Your task to perform on an android device: create a new album in the google photos Image 0: 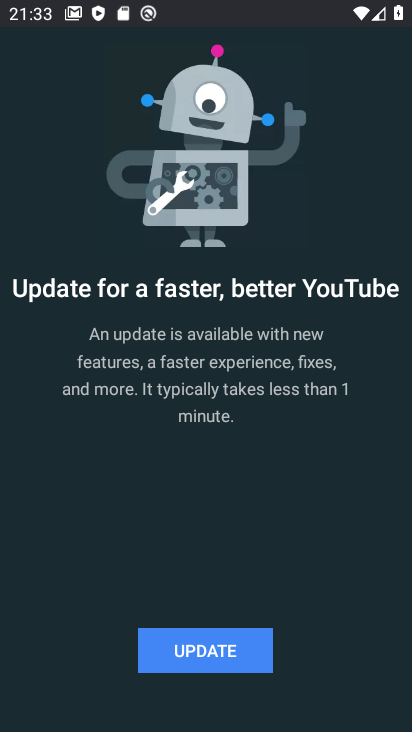
Step 0: press home button
Your task to perform on an android device: create a new album in the google photos Image 1: 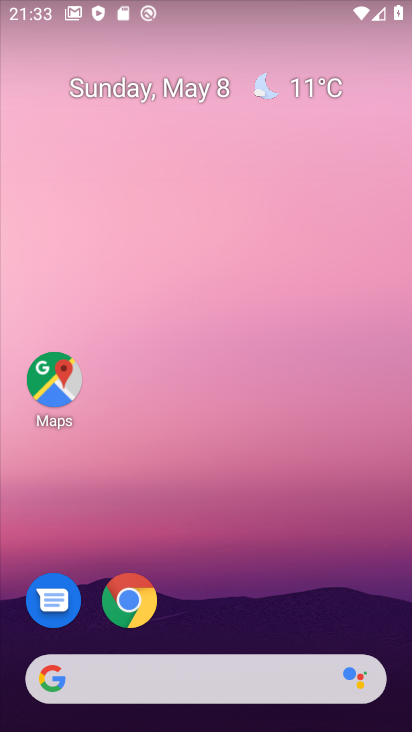
Step 1: drag from (223, 628) to (313, 105)
Your task to perform on an android device: create a new album in the google photos Image 2: 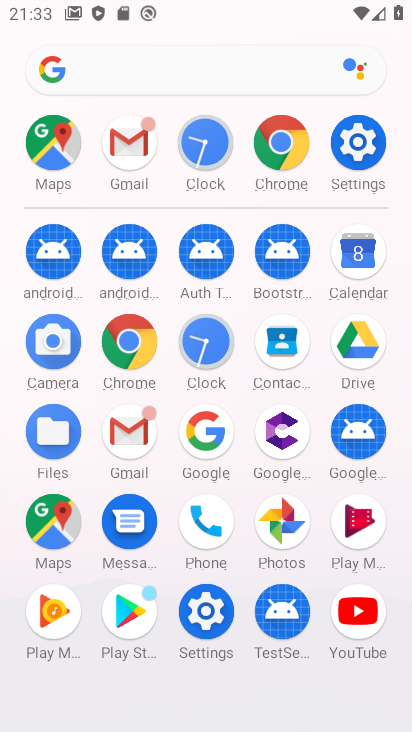
Step 2: click (280, 518)
Your task to perform on an android device: create a new album in the google photos Image 3: 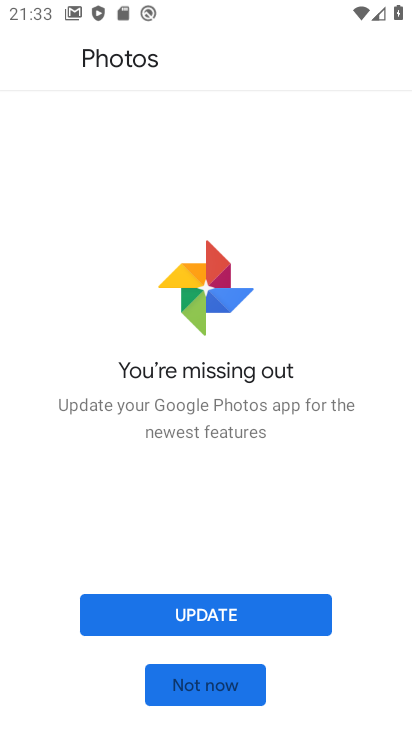
Step 3: click (190, 686)
Your task to perform on an android device: create a new album in the google photos Image 4: 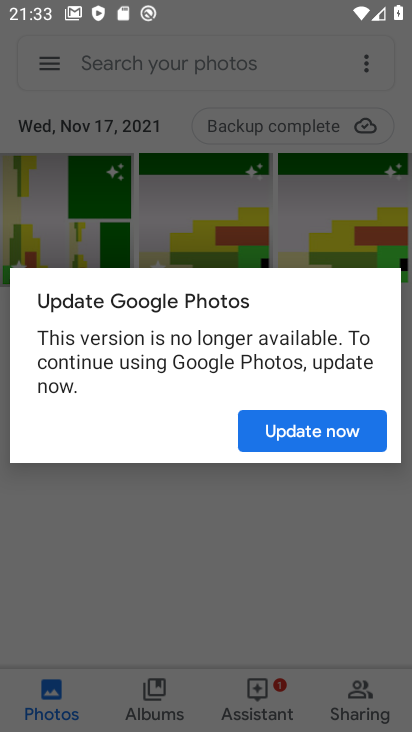
Step 4: click (337, 429)
Your task to perform on an android device: create a new album in the google photos Image 5: 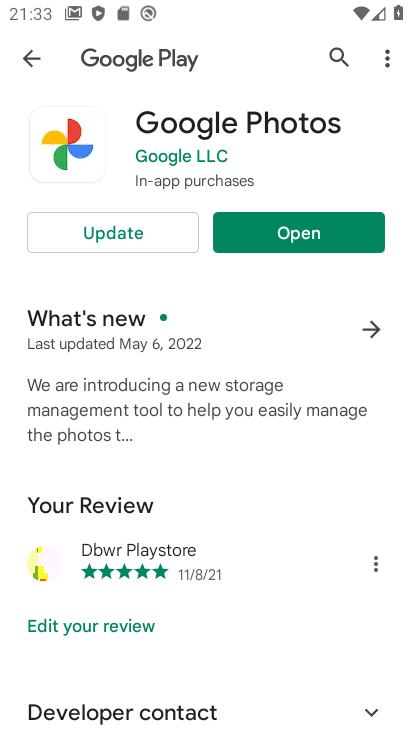
Step 5: click (308, 244)
Your task to perform on an android device: create a new album in the google photos Image 6: 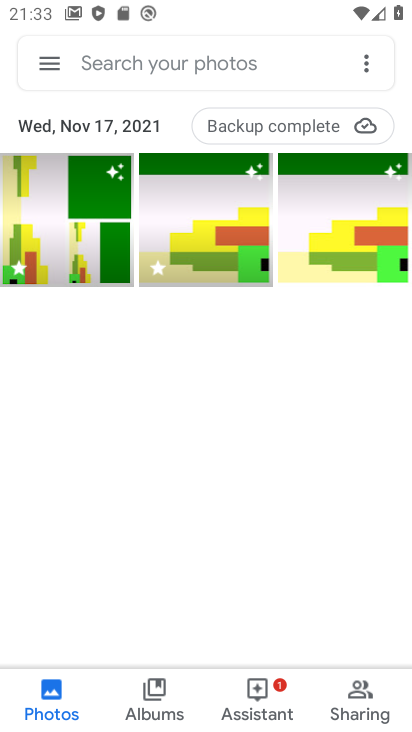
Step 6: click (117, 243)
Your task to perform on an android device: create a new album in the google photos Image 7: 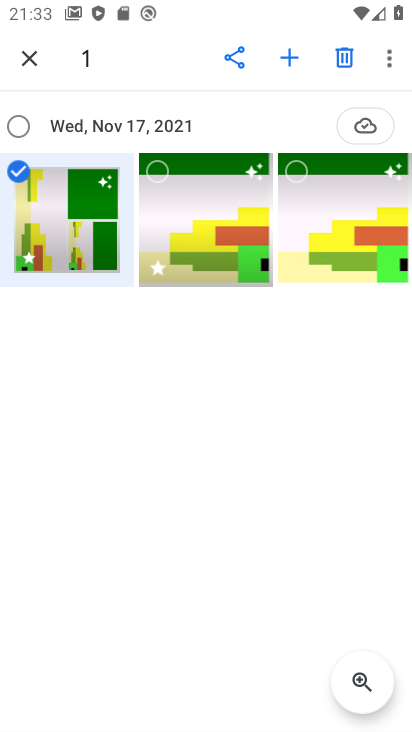
Step 7: click (169, 237)
Your task to perform on an android device: create a new album in the google photos Image 8: 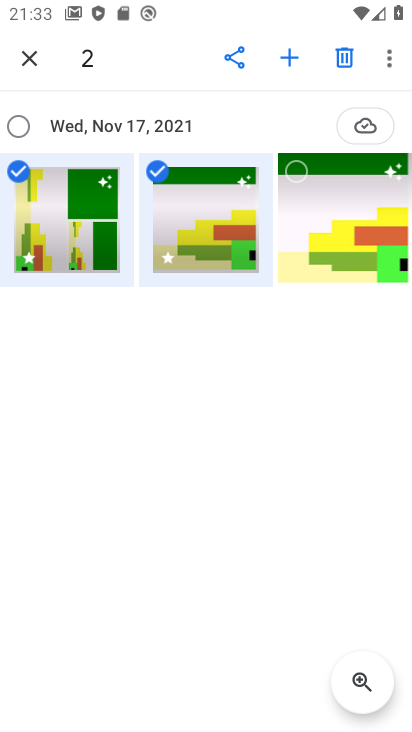
Step 8: click (288, 67)
Your task to perform on an android device: create a new album in the google photos Image 9: 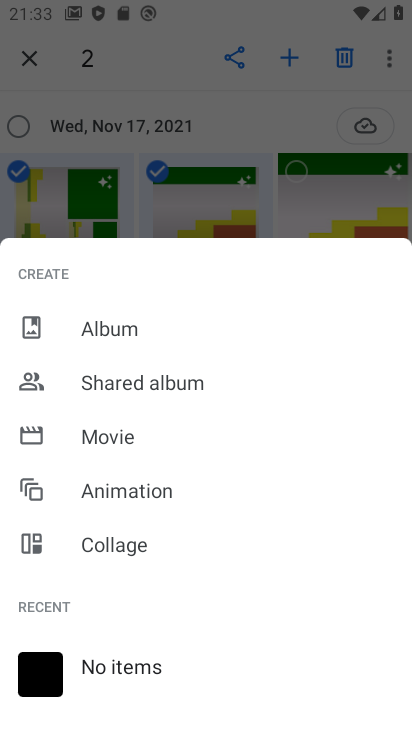
Step 9: click (87, 323)
Your task to perform on an android device: create a new album in the google photos Image 10: 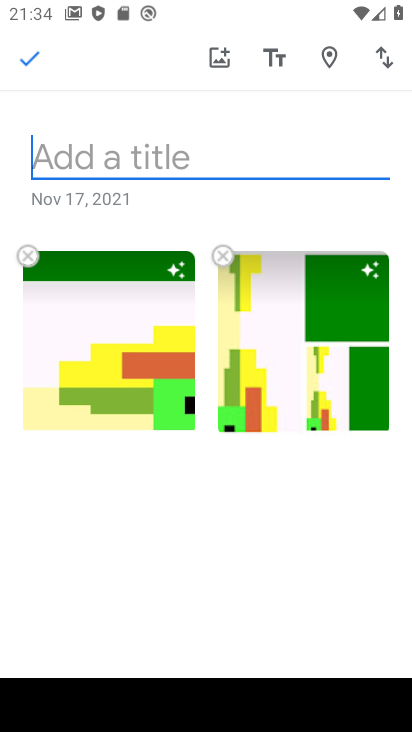
Step 10: type "gem"
Your task to perform on an android device: create a new album in the google photos Image 11: 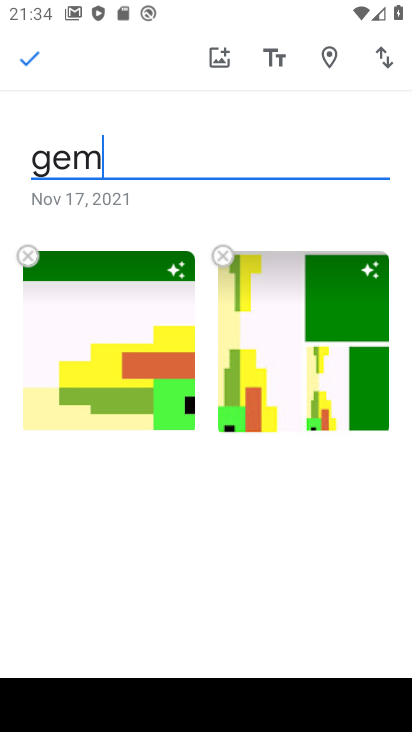
Step 11: click (45, 63)
Your task to perform on an android device: create a new album in the google photos Image 12: 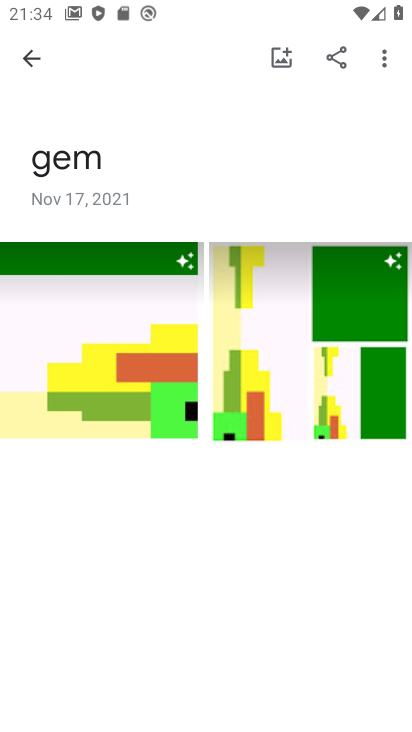
Step 12: task complete